Your task to perform on an android device: Open calendar and show me the third week of next month Image 0: 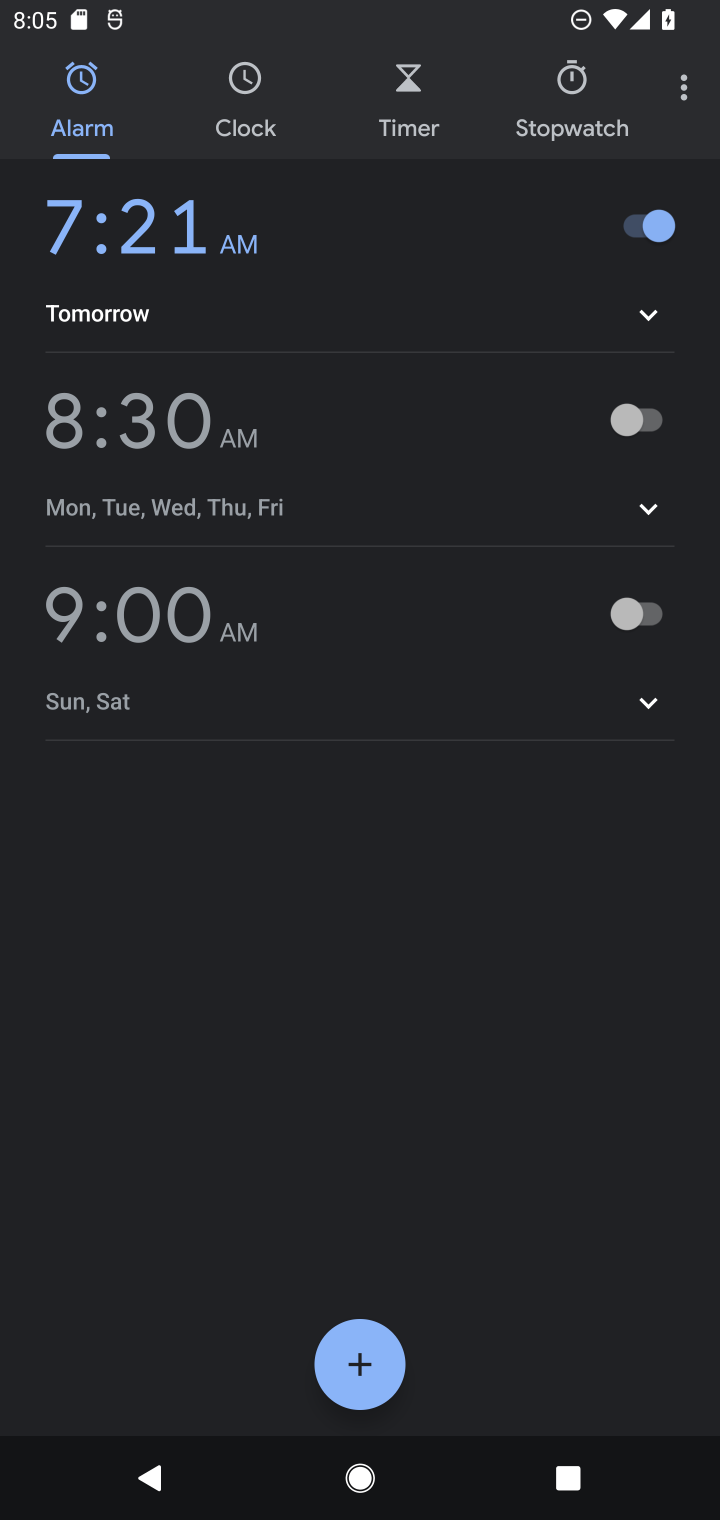
Step 0: press home button
Your task to perform on an android device: Open calendar and show me the third week of next month Image 1: 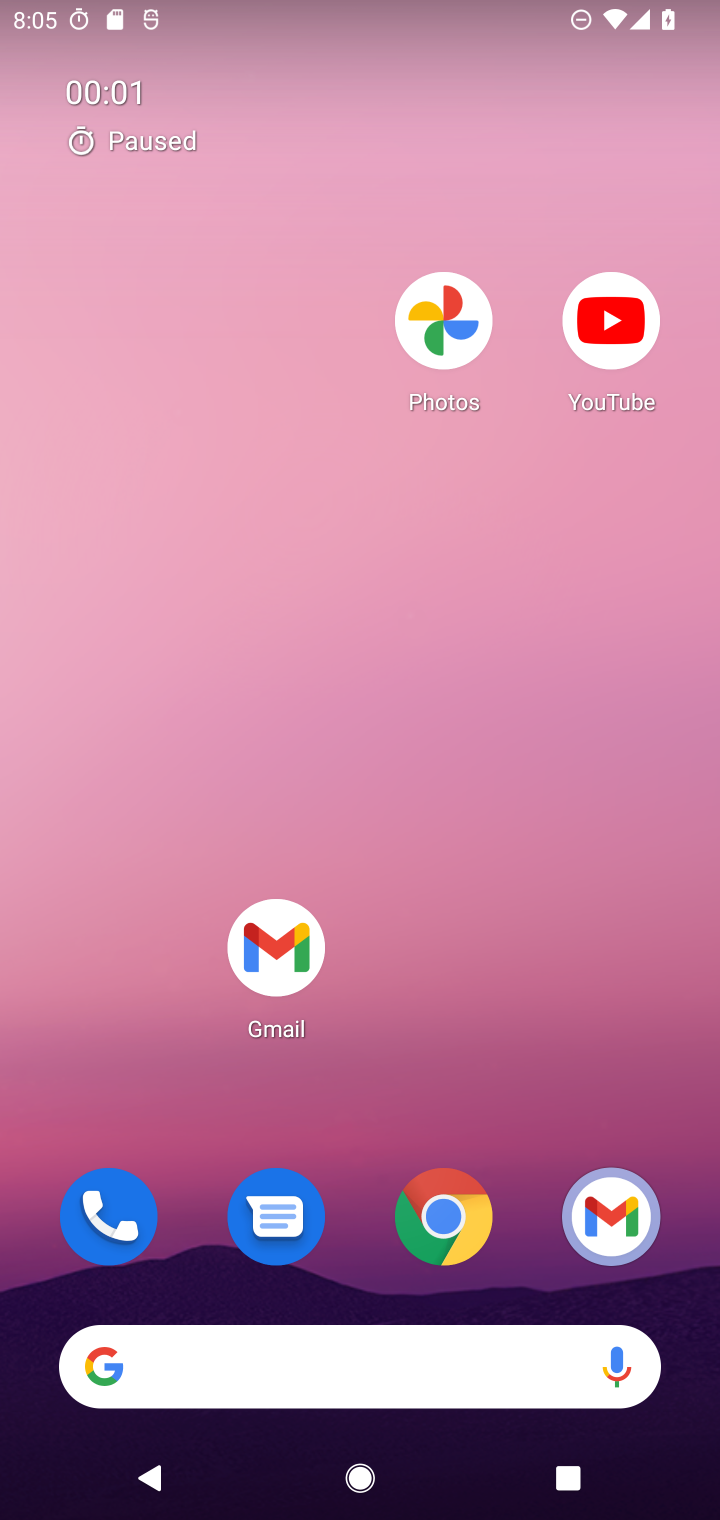
Step 1: drag from (504, 1029) to (512, 26)
Your task to perform on an android device: Open calendar and show me the third week of next month Image 2: 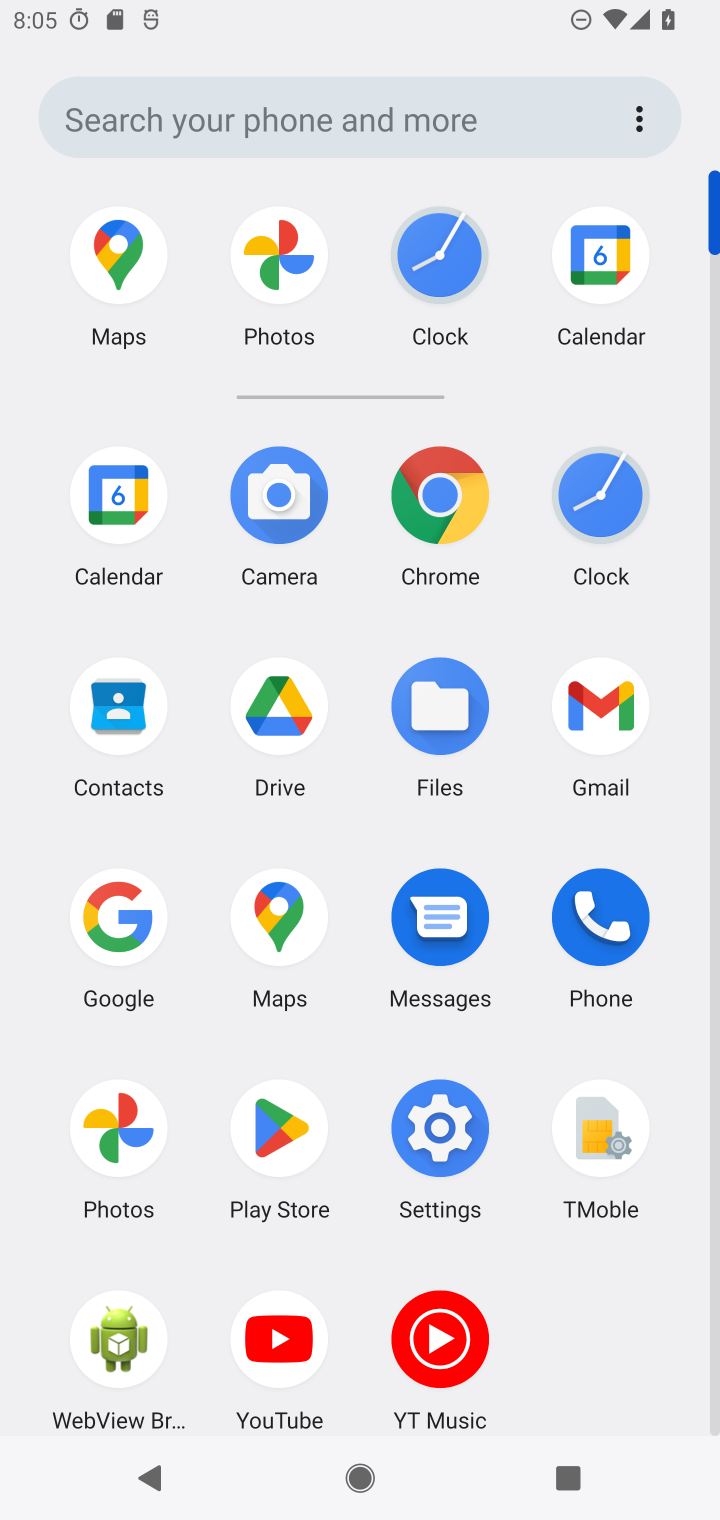
Step 2: click (122, 708)
Your task to perform on an android device: Open calendar and show me the third week of next month Image 3: 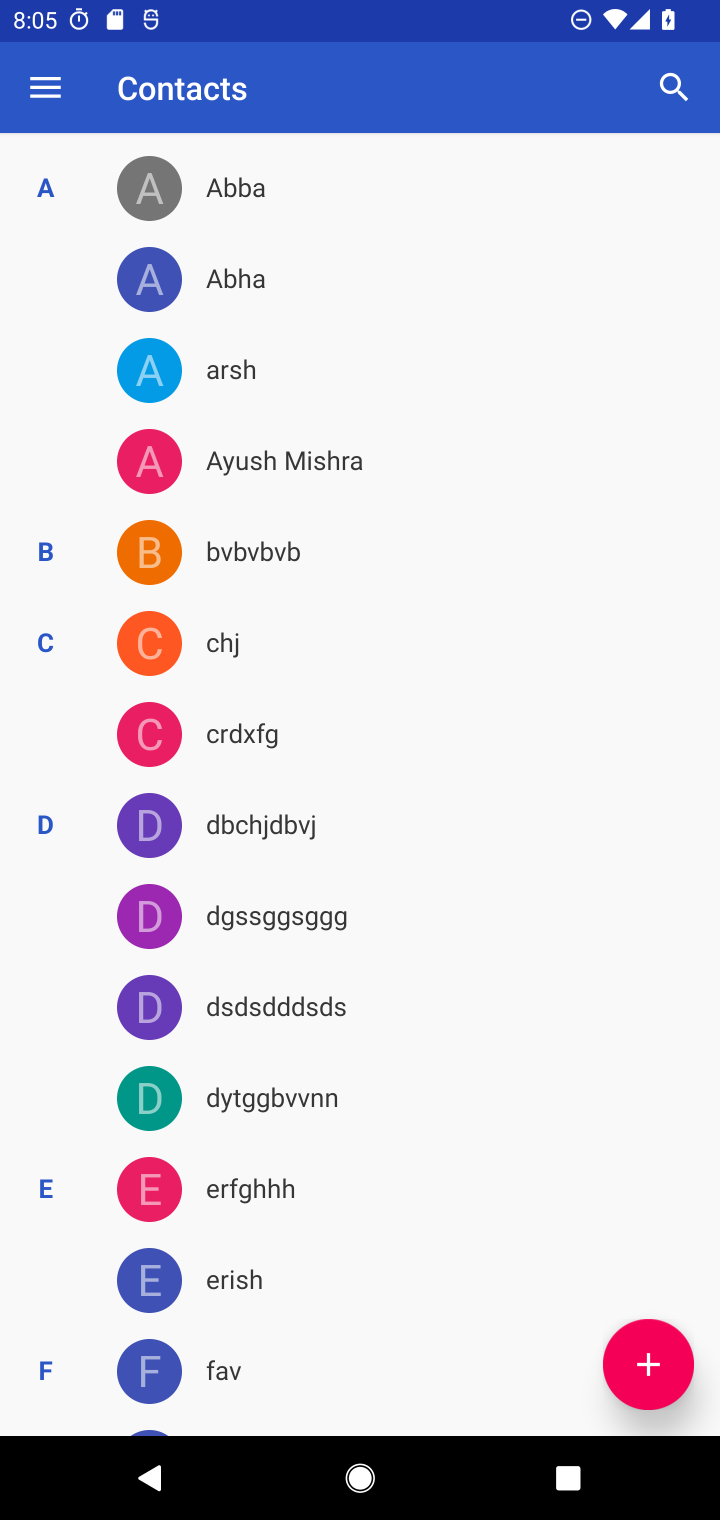
Step 3: press home button
Your task to perform on an android device: Open calendar and show me the third week of next month Image 4: 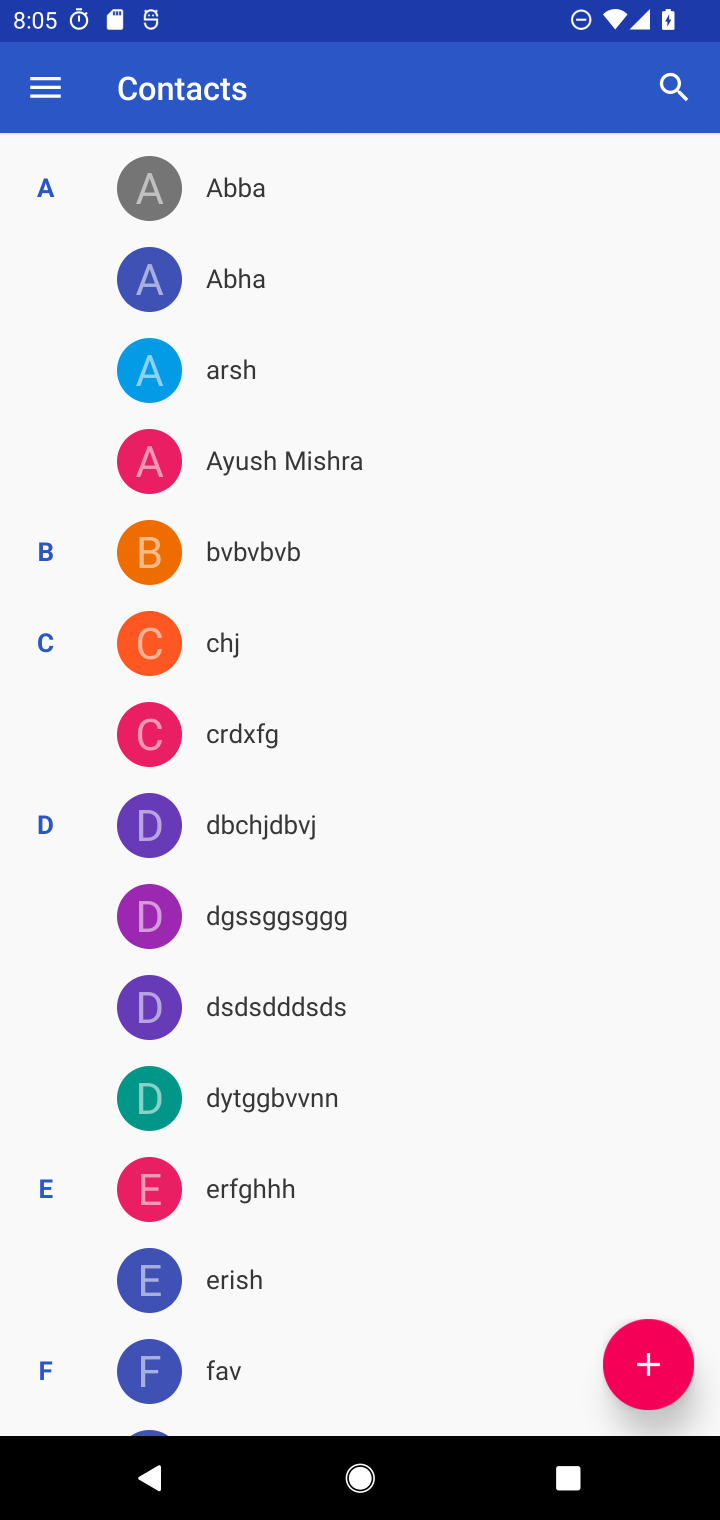
Step 4: press home button
Your task to perform on an android device: Open calendar and show me the third week of next month Image 5: 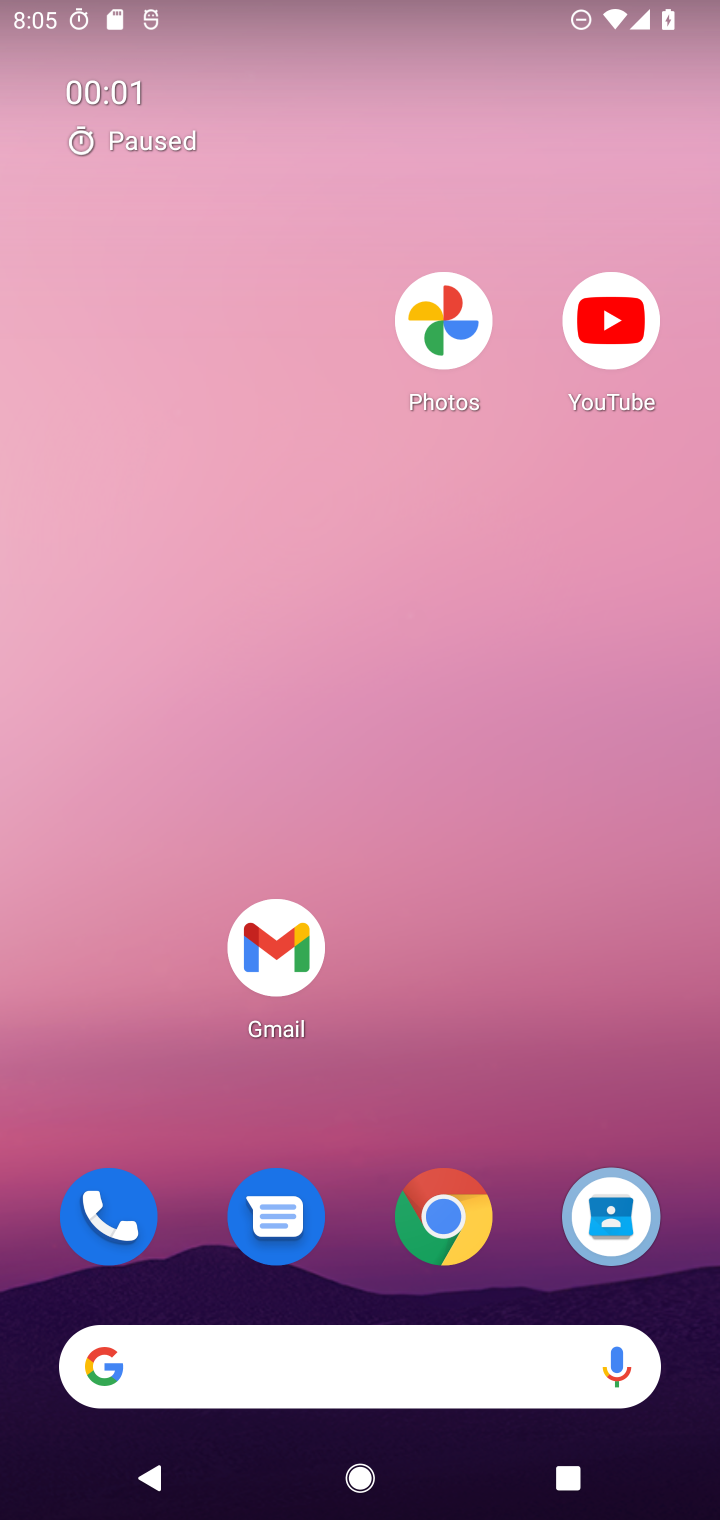
Step 5: drag from (486, 939) to (342, 7)
Your task to perform on an android device: Open calendar and show me the third week of next month Image 6: 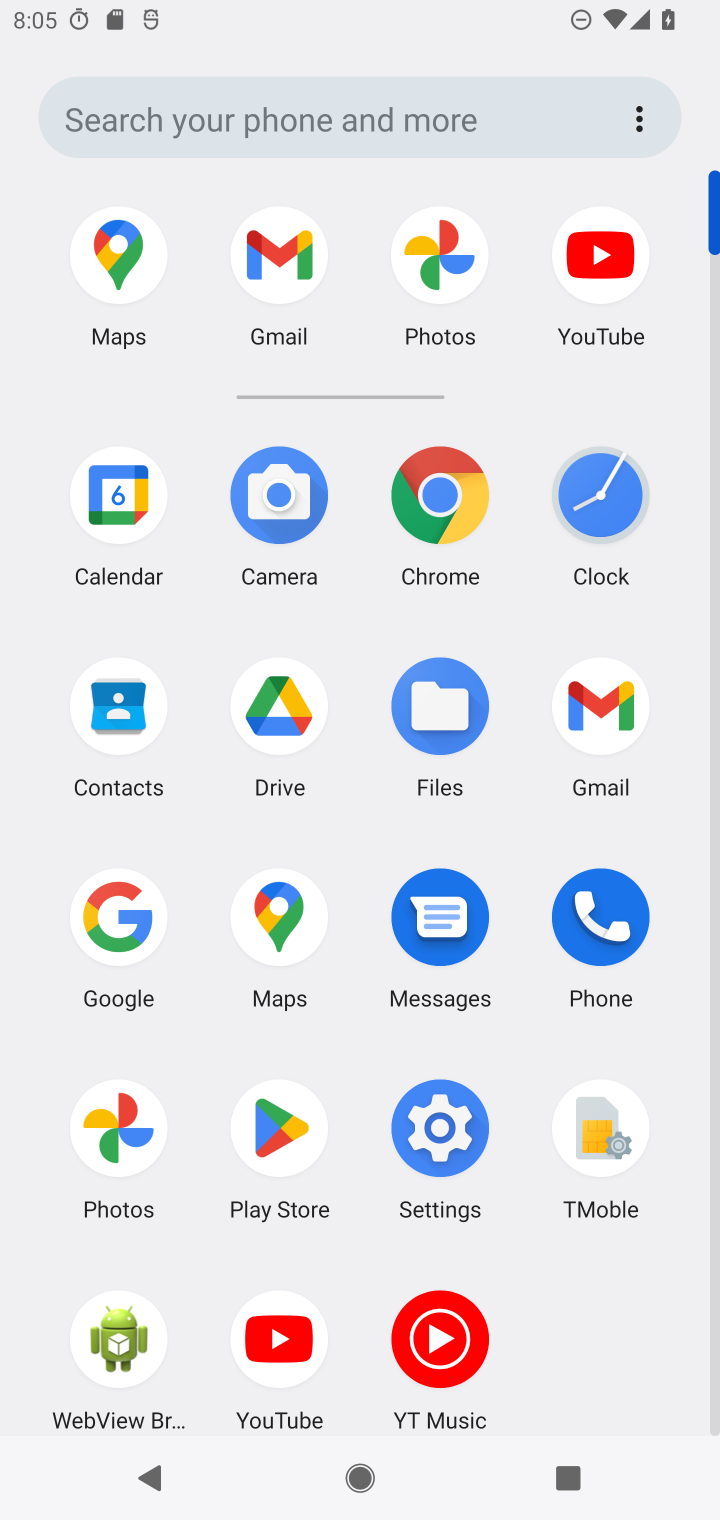
Step 6: click (116, 527)
Your task to perform on an android device: Open calendar and show me the third week of next month Image 7: 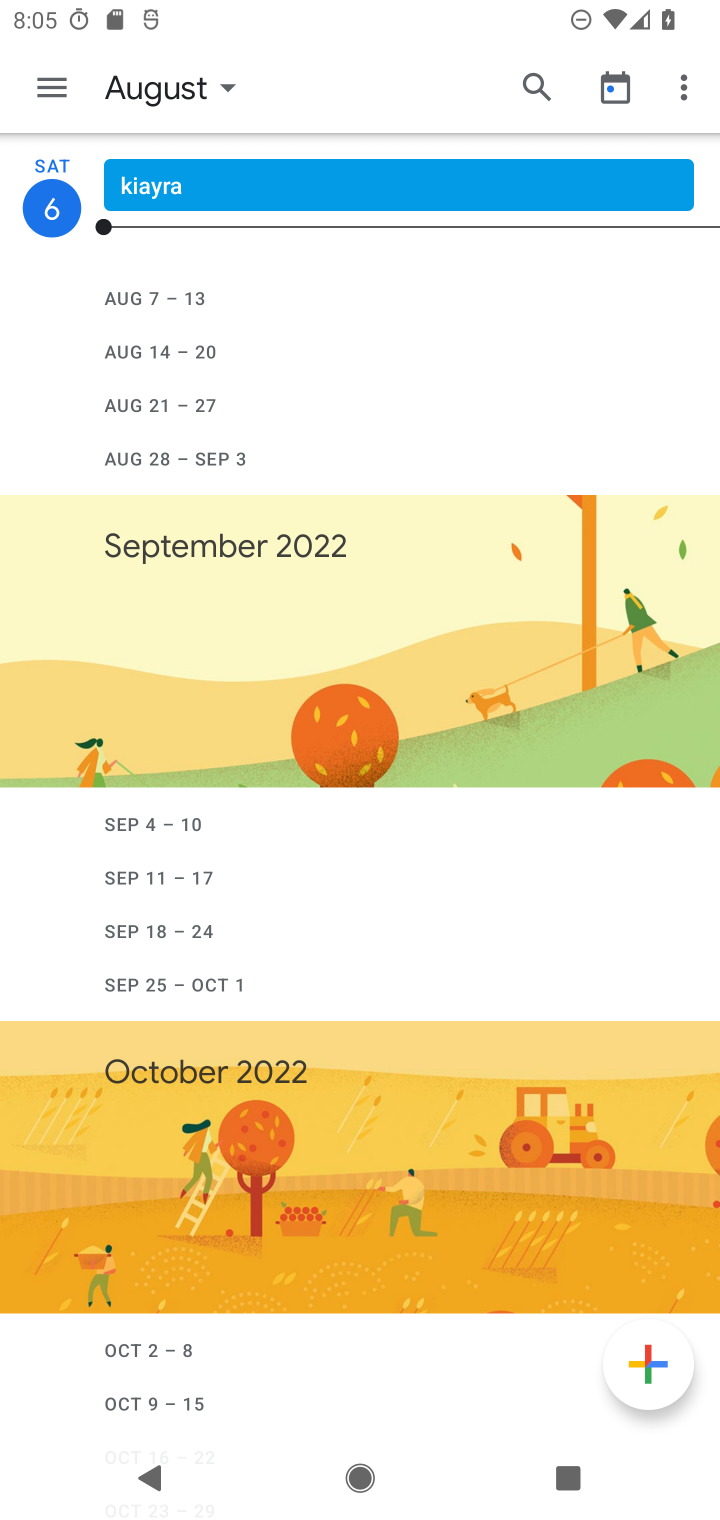
Step 7: click (147, 88)
Your task to perform on an android device: Open calendar and show me the third week of next month Image 8: 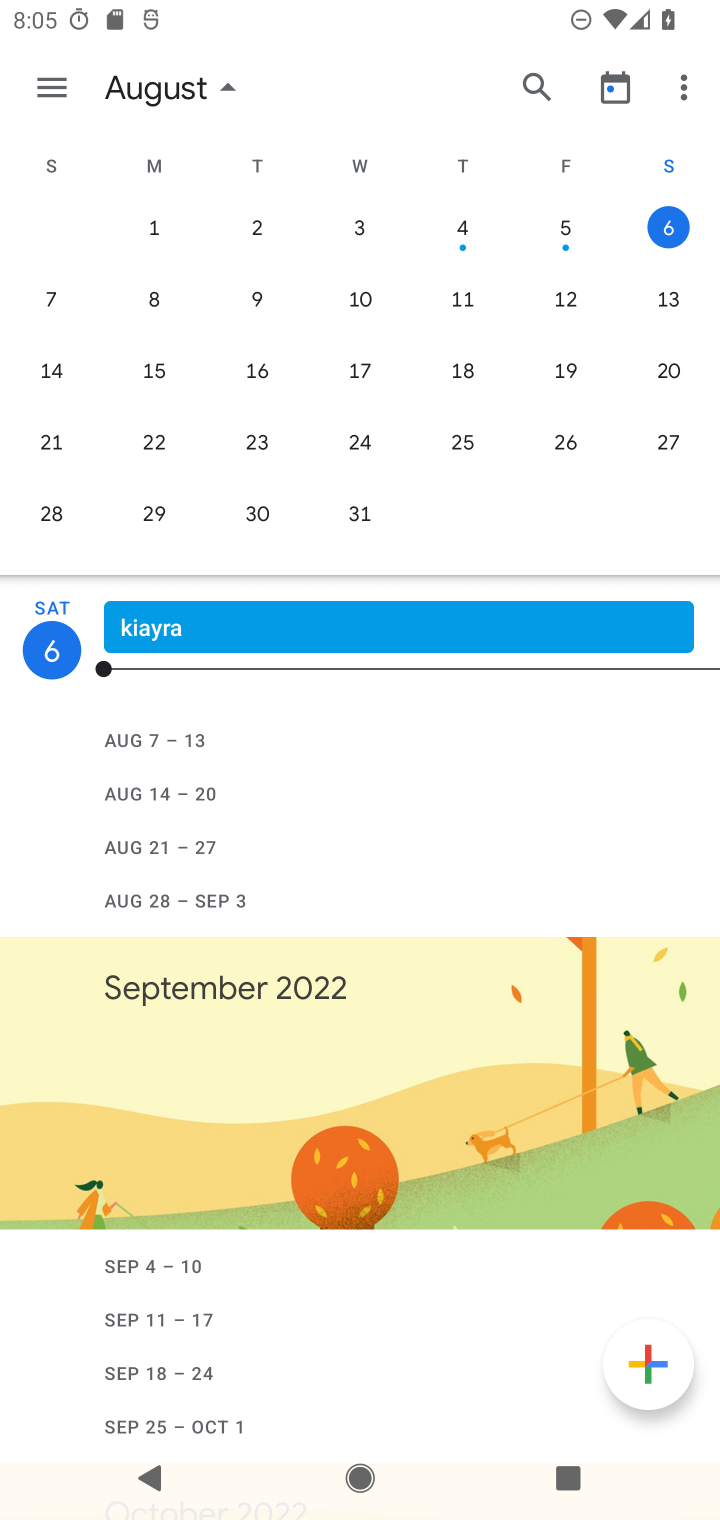
Step 8: drag from (683, 426) to (105, 394)
Your task to perform on an android device: Open calendar and show me the third week of next month Image 9: 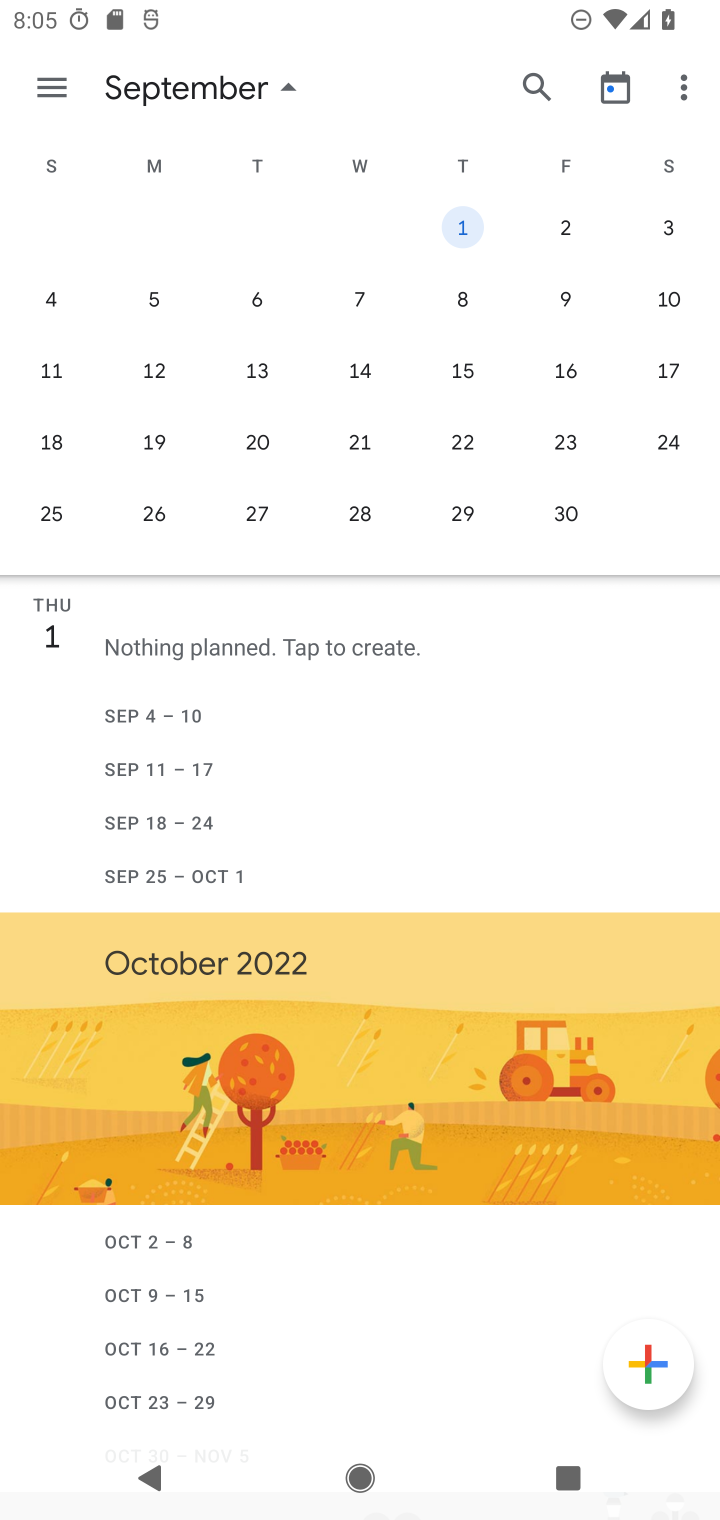
Step 9: click (260, 427)
Your task to perform on an android device: Open calendar and show me the third week of next month Image 10: 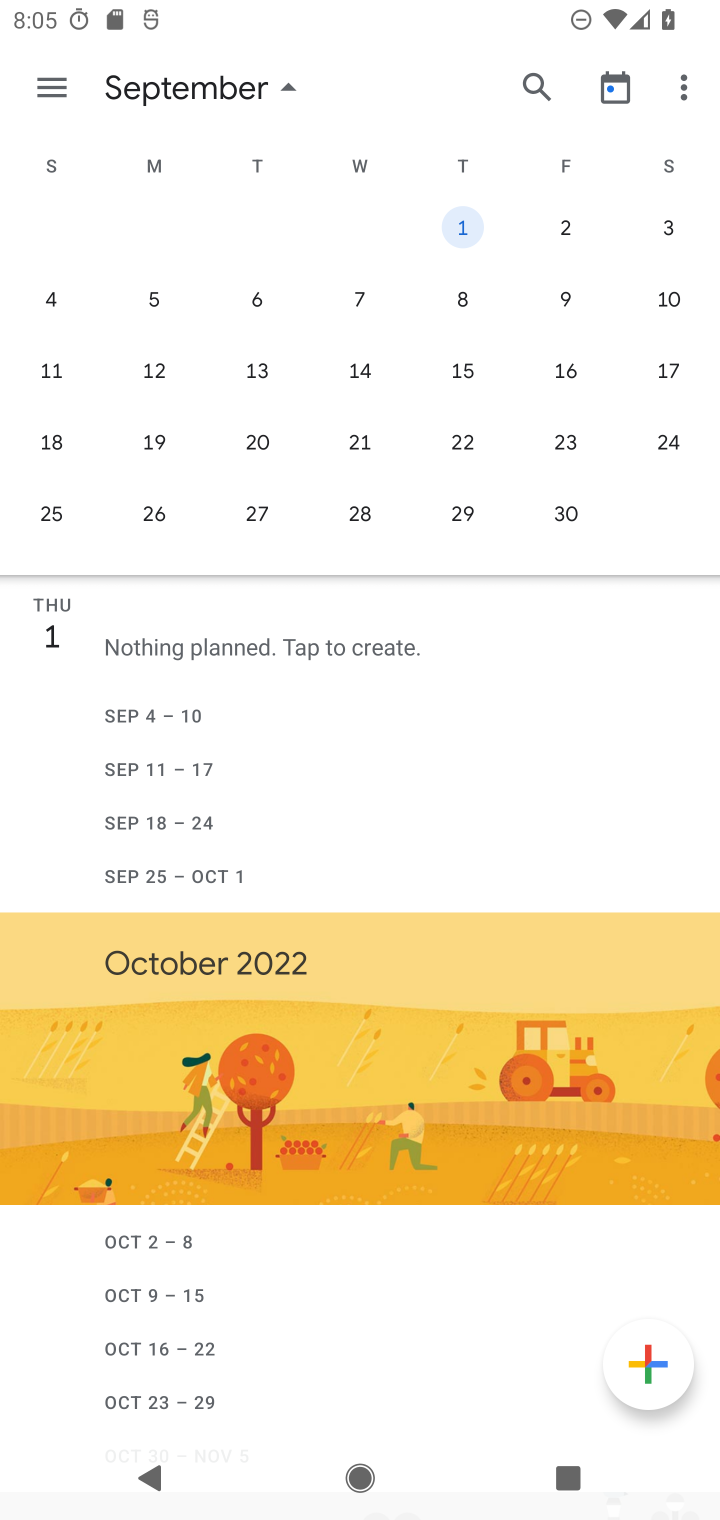
Step 10: click (260, 427)
Your task to perform on an android device: Open calendar and show me the third week of next month Image 11: 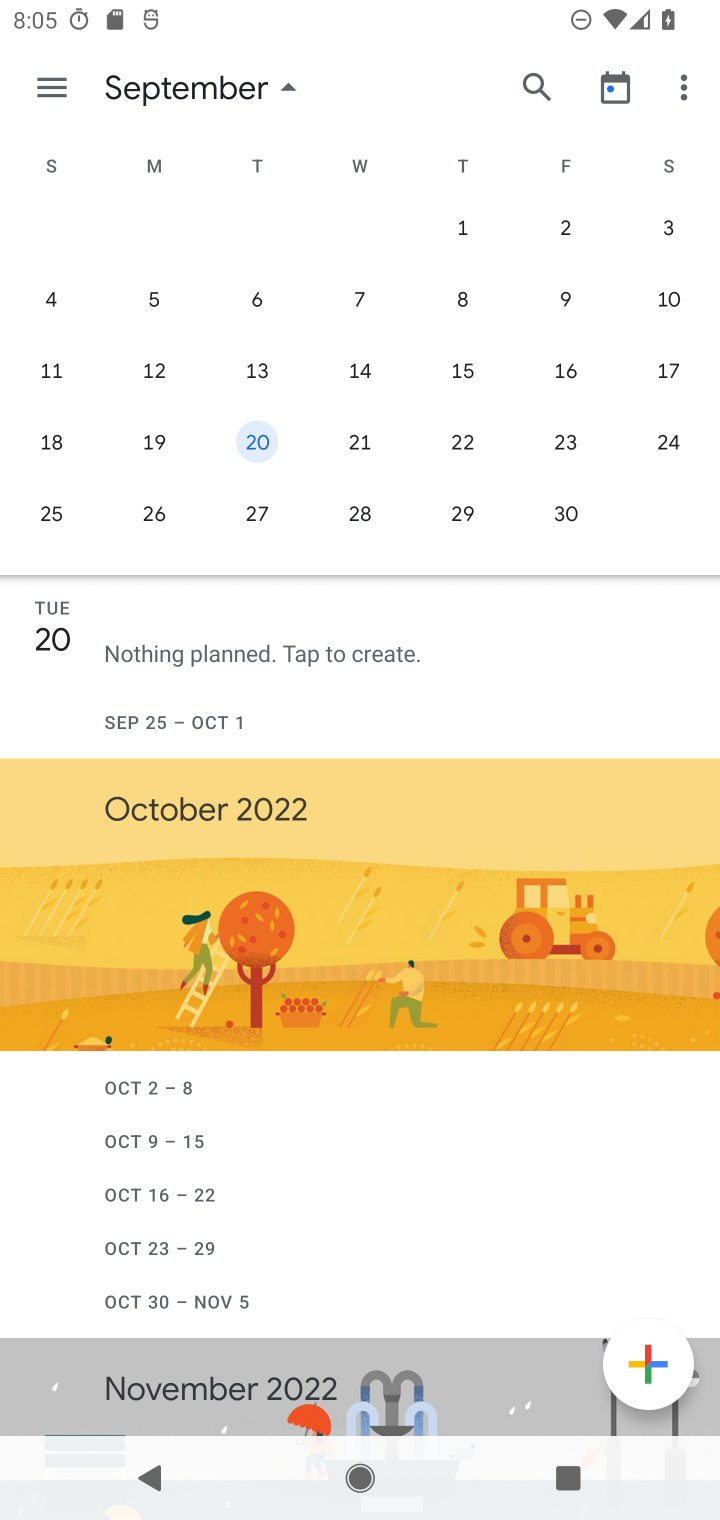
Step 11: click (51, 82)
Your task to perform on an android device: Open calendar and show me the third week of next month Image 12: 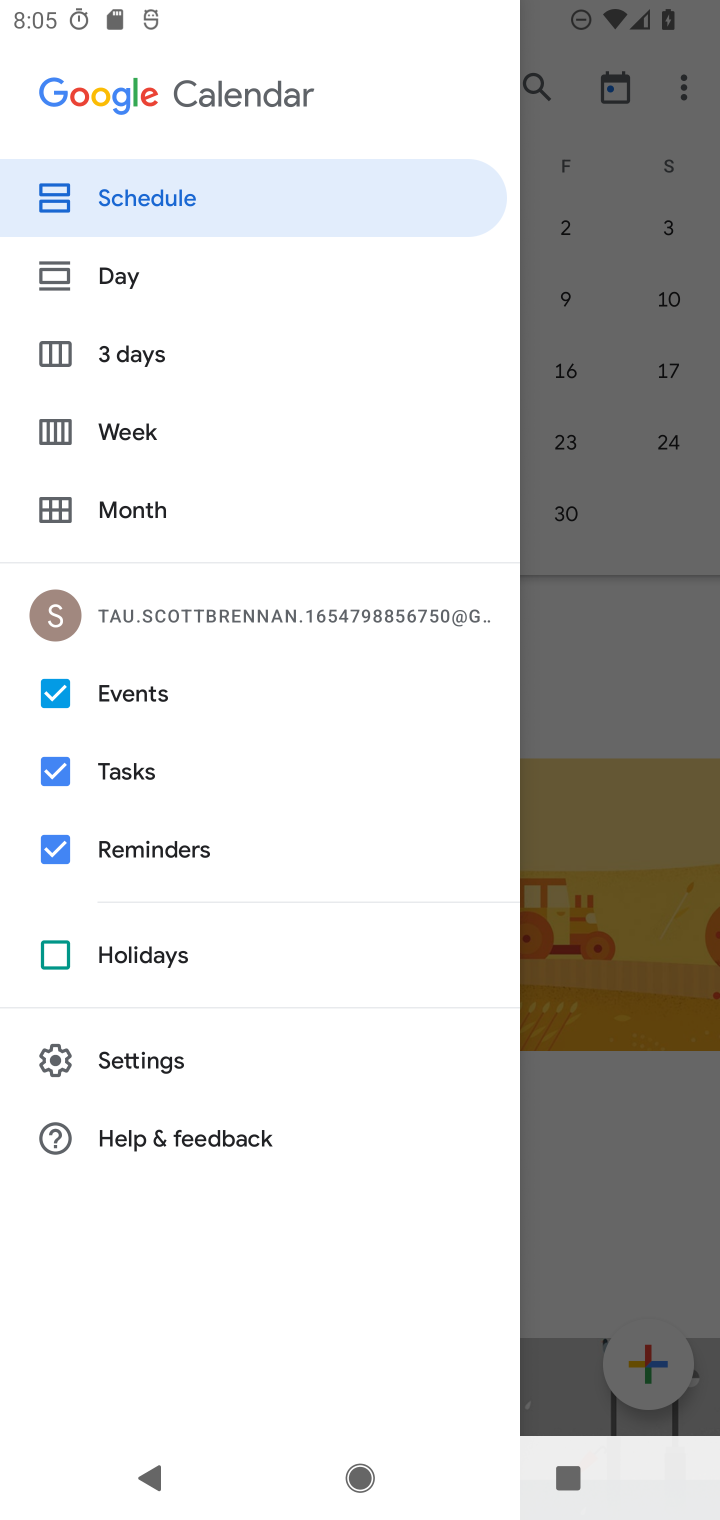
Step 12: click (113, 416)
Your task to perform on an android device: Open calendar and show me the third week of next month Image 13: 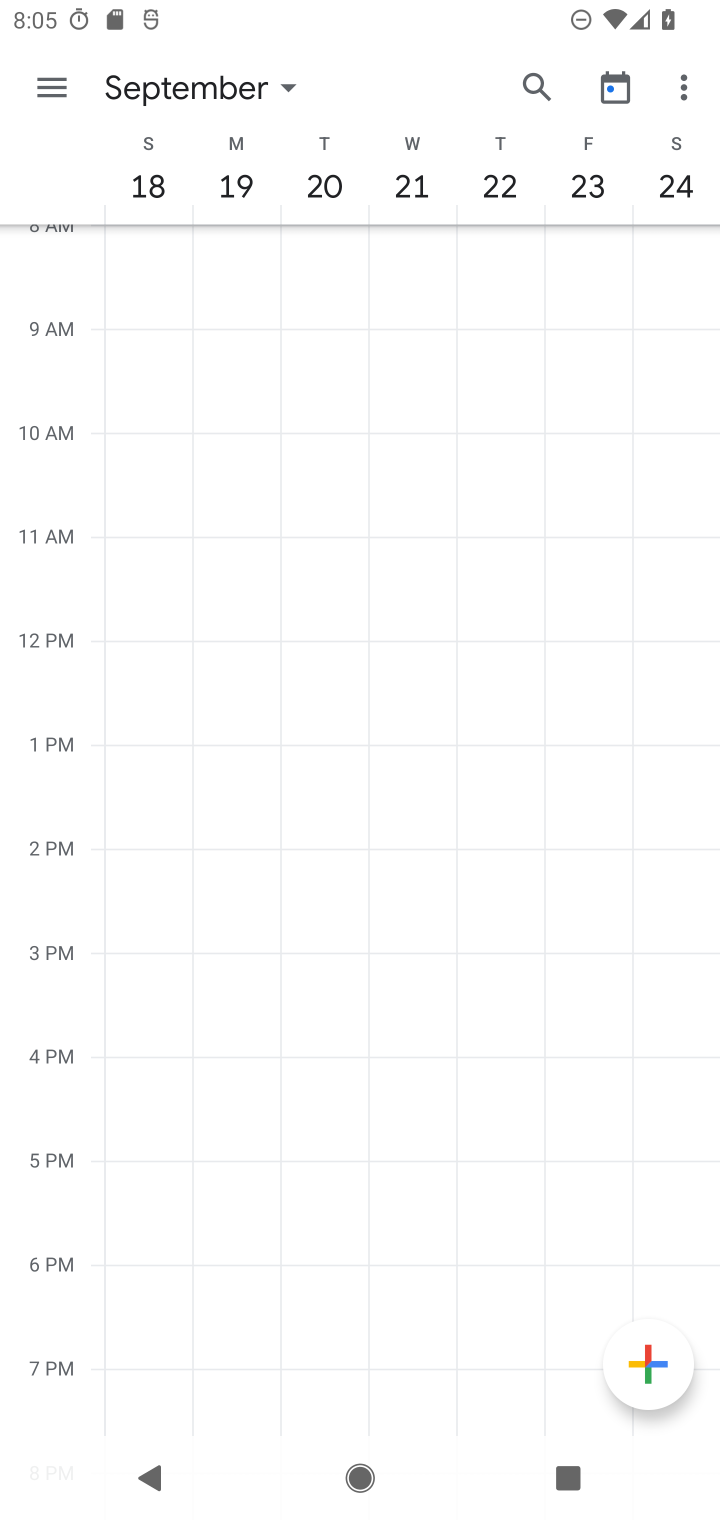
Step 13: task complete